Your task to perform on an android device: turn off wifi Image 0: 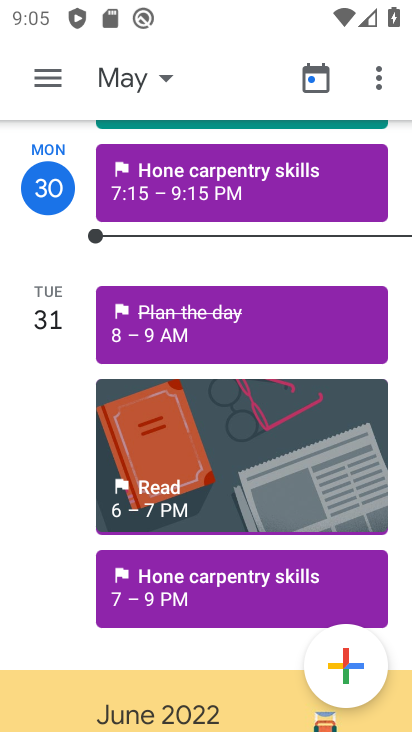
Step 0: press home button
Your task to perform on an android device: turn off wifi Image 1: 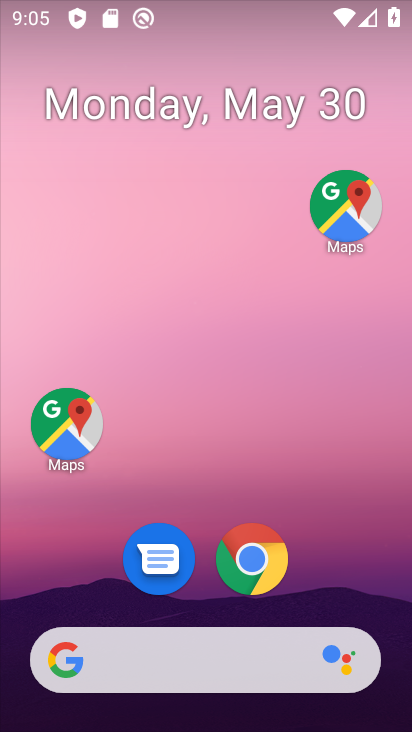
Step 1: drag from (374, 452) to (309, 151)
Your task to perform on an android device: turn off wifi Image 2: 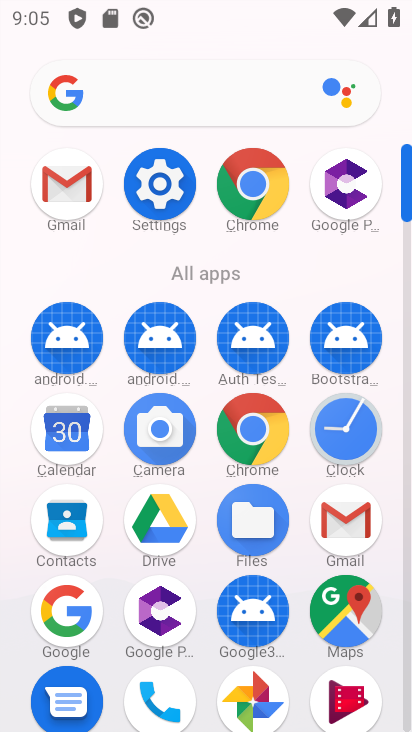
Step 2: click (160, 188)
Your task to perform on an android device: turn off wifi Image 3: 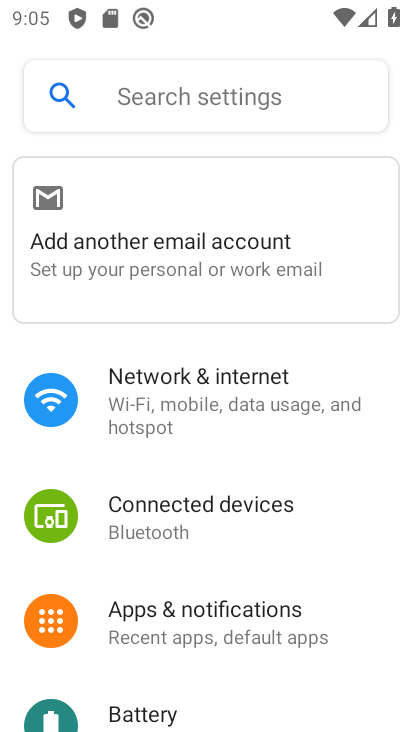
Step 3: click (213, 410)
Your task to perform on an android device: turn off wifi Image 4: 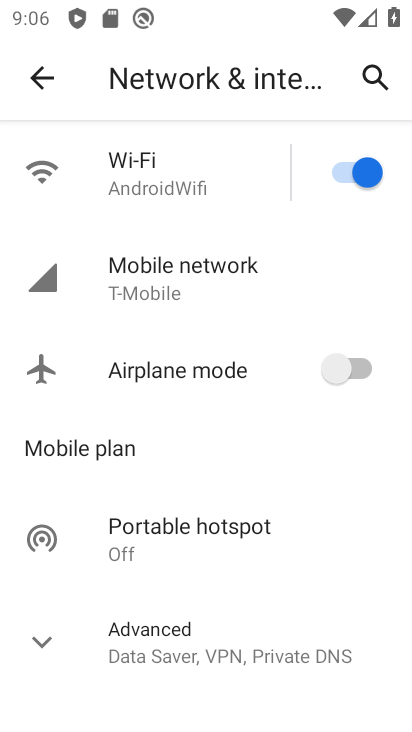
Step 4: click (365, 179)
Your task to perform on an android device: turn off wifi Image 5: 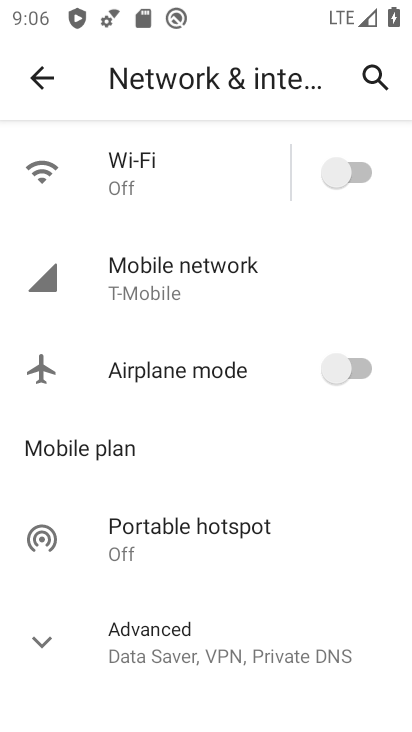
Step 5: task complete